Your task to perform on an android device: remove spam from my inbox in the gmail app Image 0: 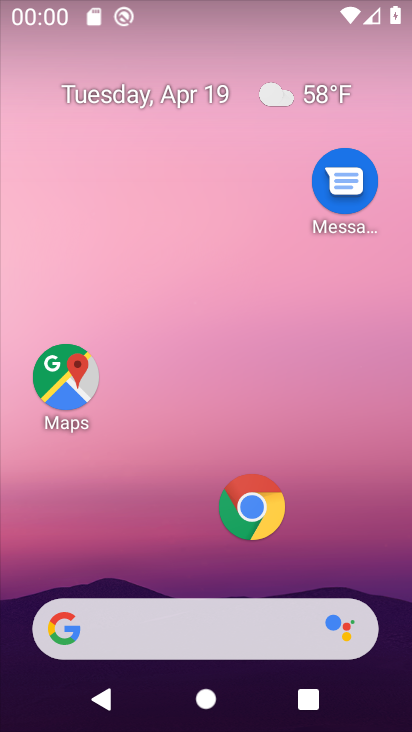
Step 0: drag from (147, 476) to (247, 4)
Your task to perform on an android device: remove spam from my inbox in the gmail app Image 1: 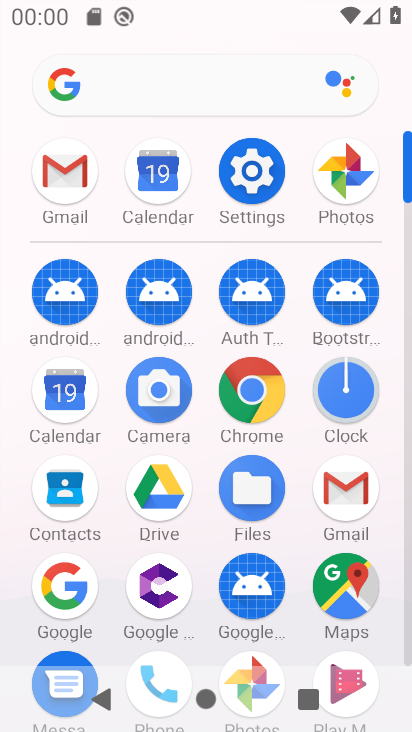
Step 1: click (346, 492)
Your task to perform on an android device: remove spam from my inbox in the gmail app Image 2: 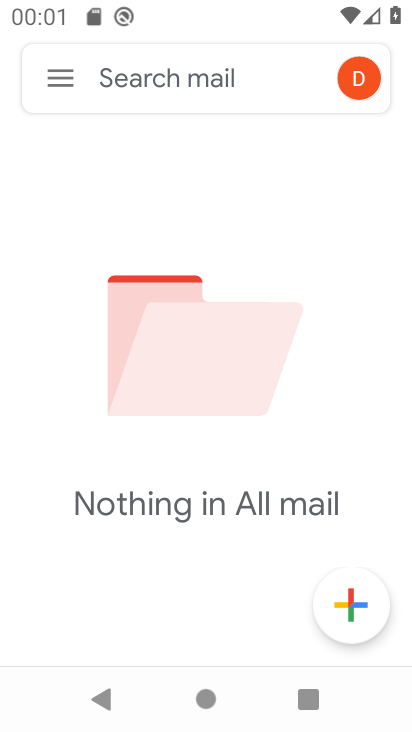
Step 2: click (62, 80)
Your task to perform on an android device: remove spam from my inbox in the gmail app Image 3: 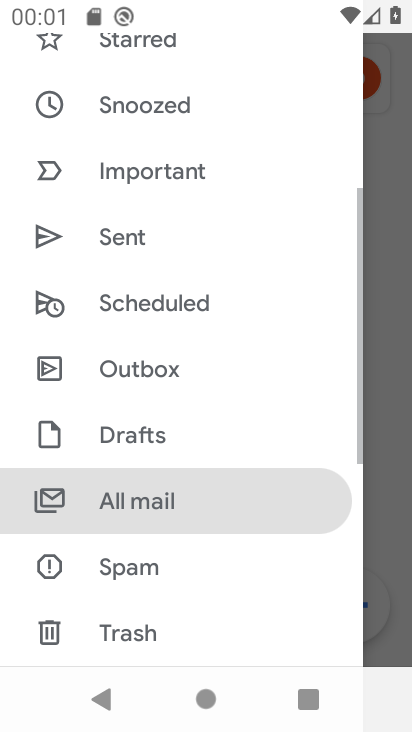
Step 3: click (116, 576)
Your task to perform on an android device: remove spam from my inbox in the gmail app Image 4: 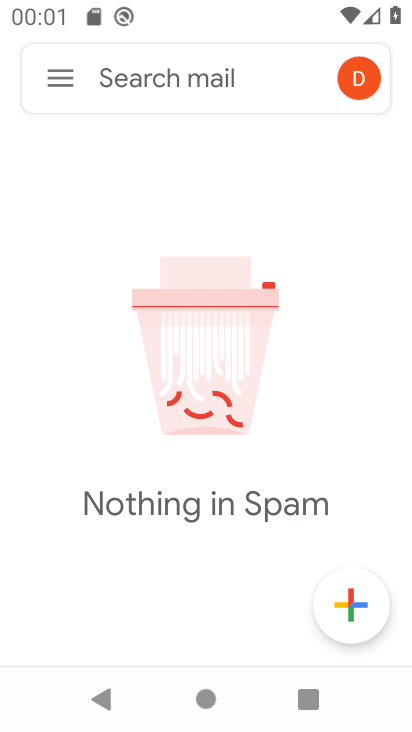
Step 4: task complete